Your task to perform on an android device: Check the news Image 0: 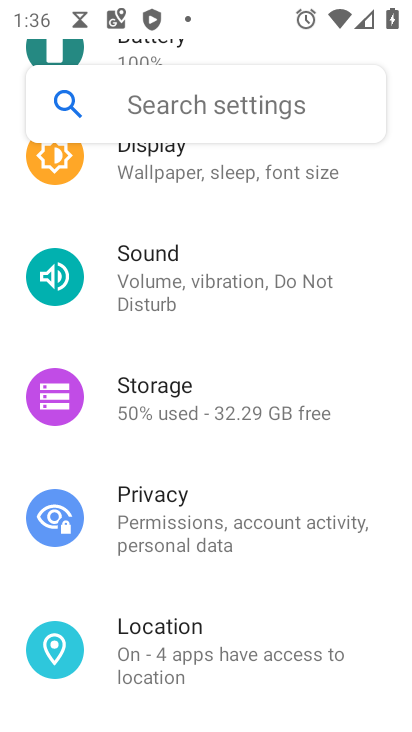
Step 0: press home button
Your task to perform on an android device: Check the news Image 1: 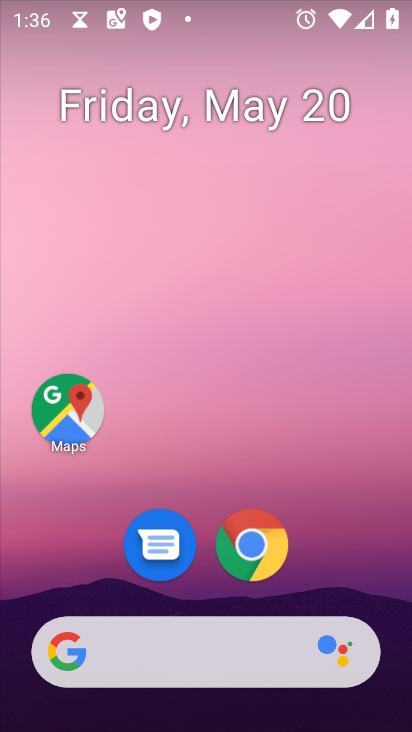
Step 1: click (187, 640)
Your task to perform on an android device: Check the news Image 2: 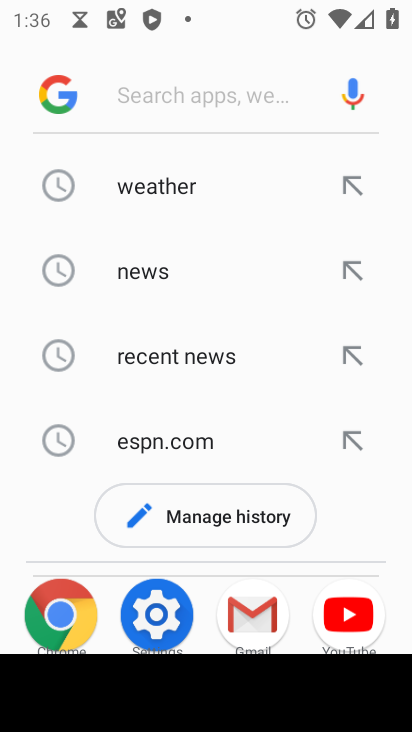
Step 2: click (157, 290)
Your task to perform on an android device: Check the news Image 3: 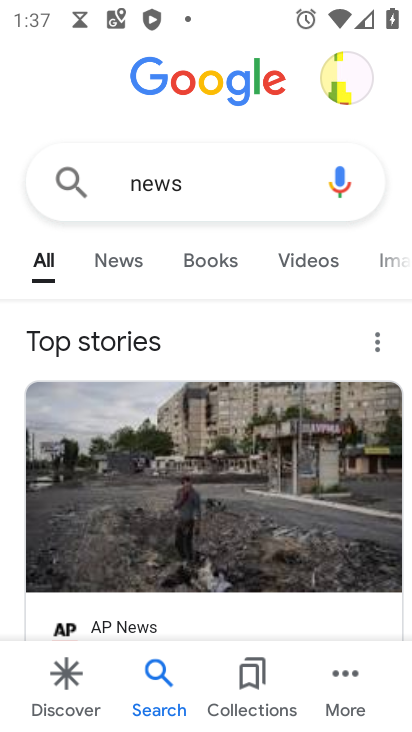
Step 3: task complete